Your task to perform on an android device: open app "Booking.com: Hotels and more" (install if not already installed) and enter user name: "misting@outlook.com" and password: "blandly" Image 0: 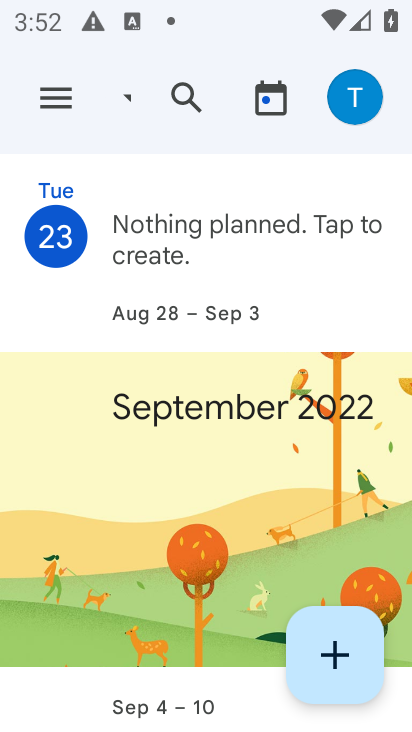
Step 0: press home button
Your task to perform on an android device: open app "Booking.com: Hotels and more" (install if not already installed) and enter user name: "misting@outlook.com" and password: "blandly" Image 1: 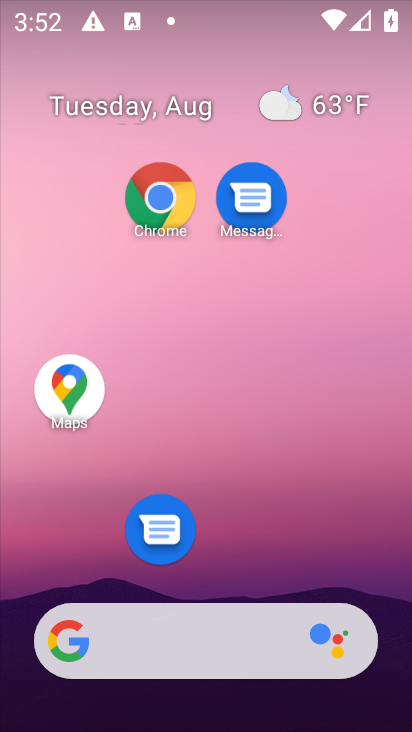
Step 1: drag from (295, 603) to (323, 13)
Your task to perform on an android device: open app "Booking.com: Hotels and more" (install if not already installed) and enter user name: "misting@outlook.com" and password: "blandly" Image 2: 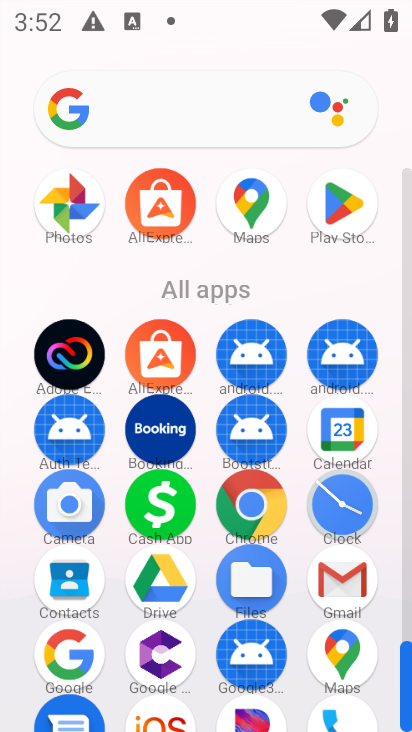
Step 2: click (340, 206)
Your task to perform on an android device: open app "Booking.com: Hotels and more" (install if not already installed) and enter user name: "misting@outlook.com" and password: "blandly" Image 3: 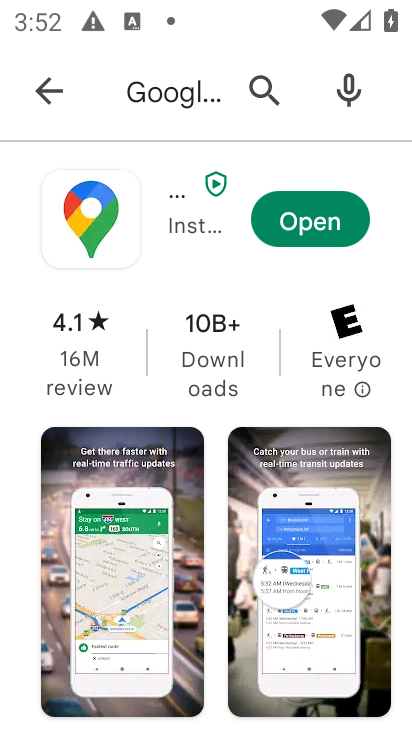
Step 3: press back button
Your task to perform on an android device: open app "Booking.com: Hotels and more" (install if not already installed) and enter user name: "misting@outlook.com" and password: "blandly" Image 4: 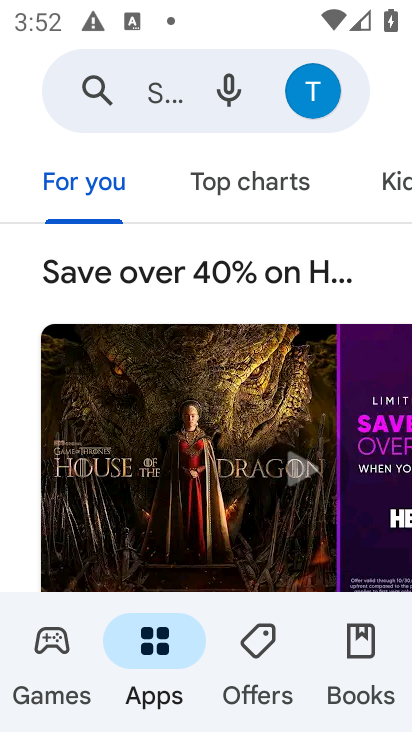
Step 4: click (151, 102)
Your task to perform on an android device: open app "Booking.com: Hotels and more" (install if not already installed) and enter user name: "misting@outlook.com" and password: "blandly" Image 5: 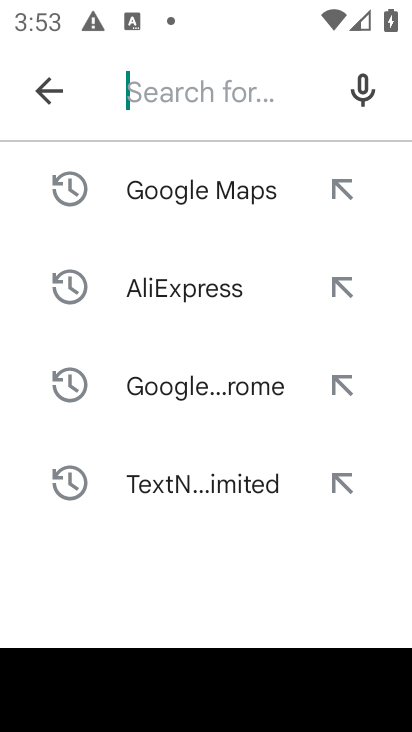
Step 5: type "Booking.com: Hotels and more"
Your task to perform on an android device: open app "Booking.com: Hotels and more" (install if not already installed) and enter user name: "misting@outlook.com" and password: "blandly" Image 6: 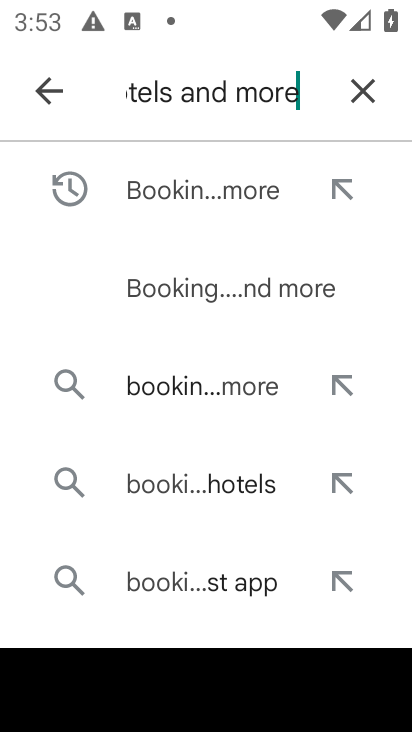
Step 6: press enter
Your task to perform on an android device: open app "Booking.com: Hotels and more" (install if not already installed) and enter user name: "misting@outlook.com" and password: "blandly" Image 7: 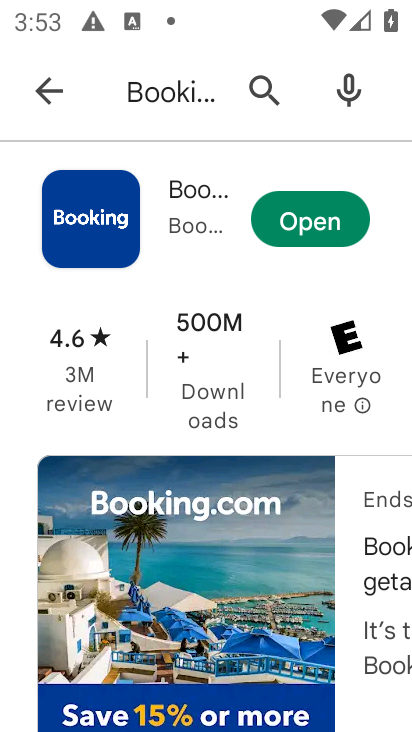
Step 7: click (330, 219)
Your task to perform on an android device: open app "Booking.com: Hotels and more" (install if not already installed) and enter user name: "misting@outlook.com" and password: "blandly" Image 8: 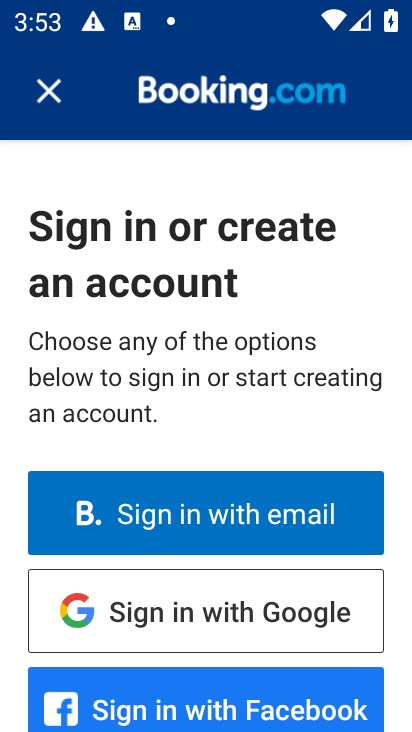
Step 8: drag from (338, 385) to (288, 102)
Your task to perform on an android device: open app "Booking.com: Hotels and more" (install if not already installed) and enter user name: "misting@outlook.com" and password: "blandly" Image 9: 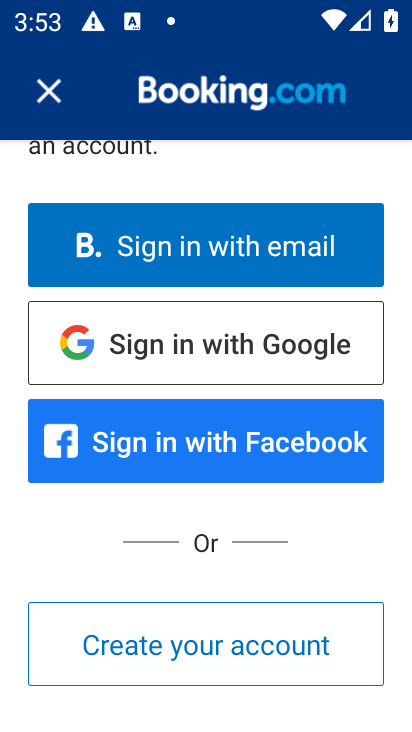
Step 9: click (225, 240)
Your task to perform on an android device: open app "Booking.com: Hotels and more" (install if not already installed) and enter user name: "misting@outlook.com" and password: "blandly" Image 10: 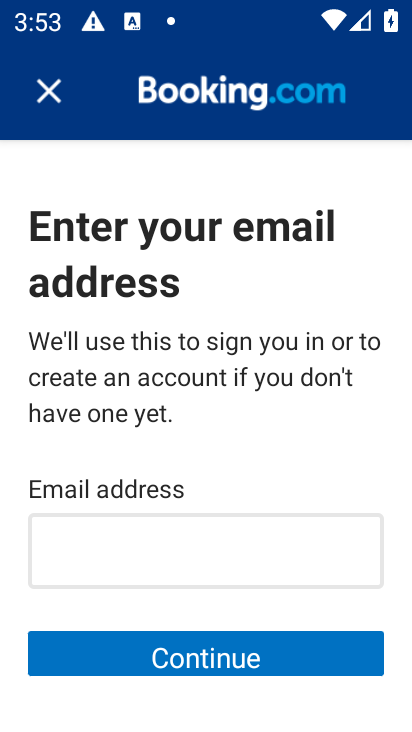
Step 10: press back button
Your task to perform on an android device: open app "Booking.com: Hotels and more" (install if not already installed) and enter user name: "misting@outlook.com" and password: "blandly" Image 11: 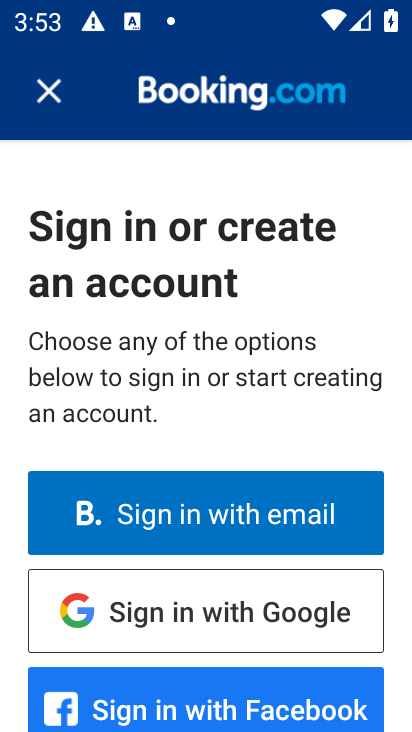
Step 11: drag from (115, 326) to (75, 189)
Your task to perform on an android device: open app "Booking.com: Hotels and more" (install if not already installed) and enter user name: "misting@outlook.com" and password: "blandly" Image 12: 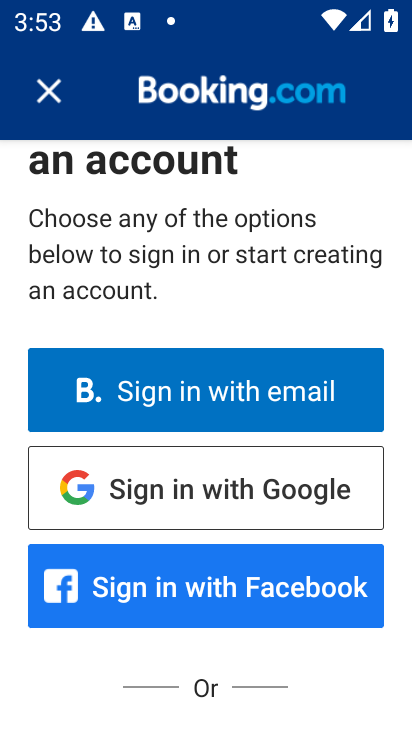
Step 12: click (157, 599)
Your task to perform on an android device: open app "Booking.com: Hotels and more" (install if not already installed) and enter user name: "misting@outlook.com" and password: "blandly" Image 13: 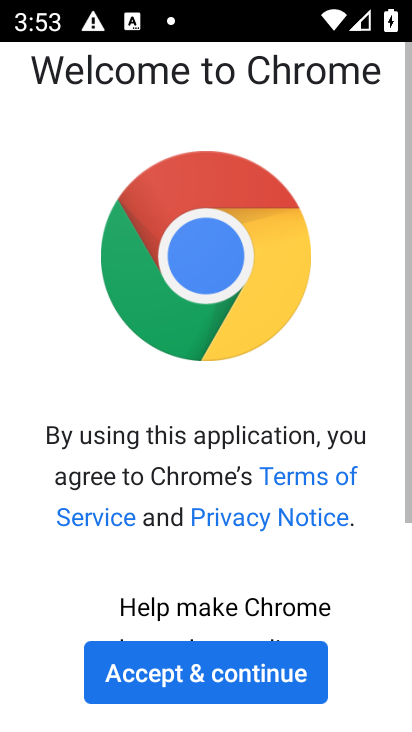
Step 13: click (194, 697)
Your task to perform on an android device: open app "Booking.com: Hotels and more" (install if not already installed) and enter user name: "misting@outlook.com" and password: "blandly" Image 14: 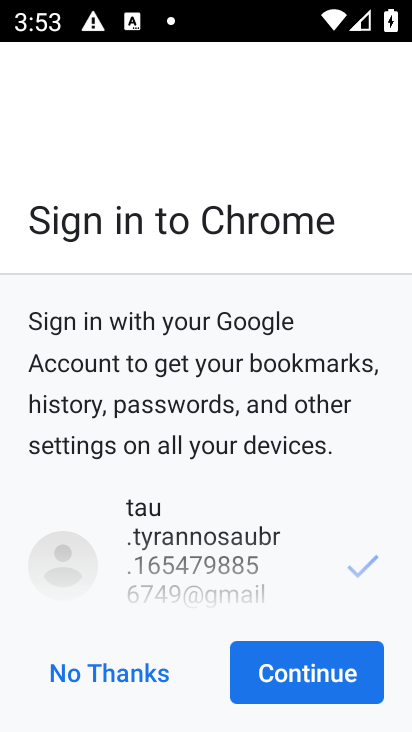
Step 14: click (66, 679)
Your task to perform on an android device: open app "Booking.com: Hotels and more" (install if not already installed) and enter user name: "misting@outlook.com" and password: "blandly" Image 15: 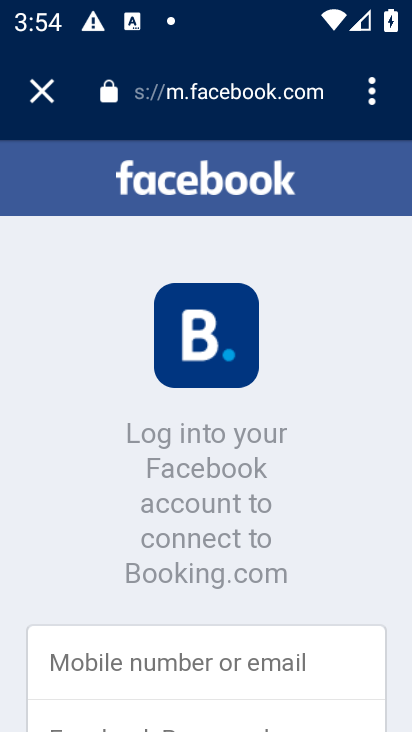
Step 15: drag from (211, 584) to (198, 257)
Your task to perform on an android device: open app "Booking.com: Hotels and more" (install if not already installed) and enter user name: "misting@outlook.com" and password: "blandly" Image 16: 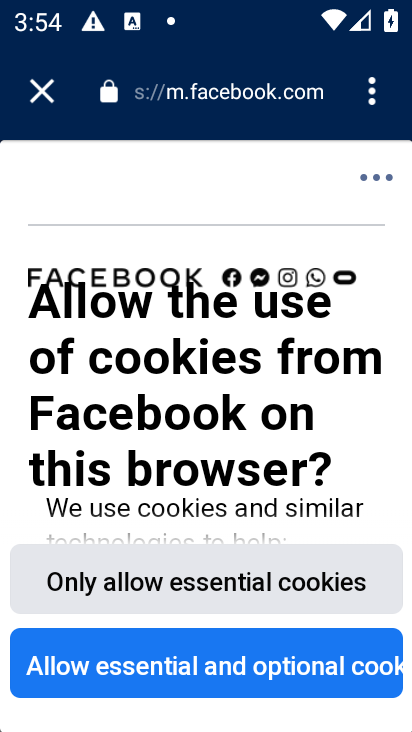
Step 16: click (250, 677)
Your task to perform on an android device: open app "Booking.com: Hotels and more" (install if not already installed) and enter user name: "misting@outlook.com" and password: "blandly" Image 17: 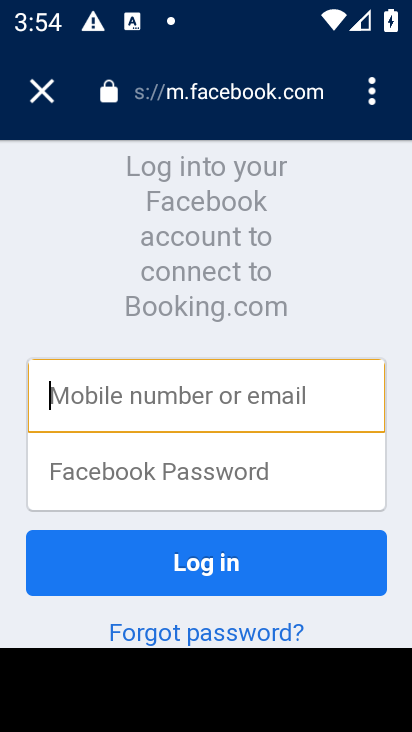
Step 17: type "misting@outlook.com"
Your task to perform on an android device: open app "Booking.com: Hotels and more" (install if not already installed) and enter user name: "misting@outlook.com" and password: "blandly" Image 18: 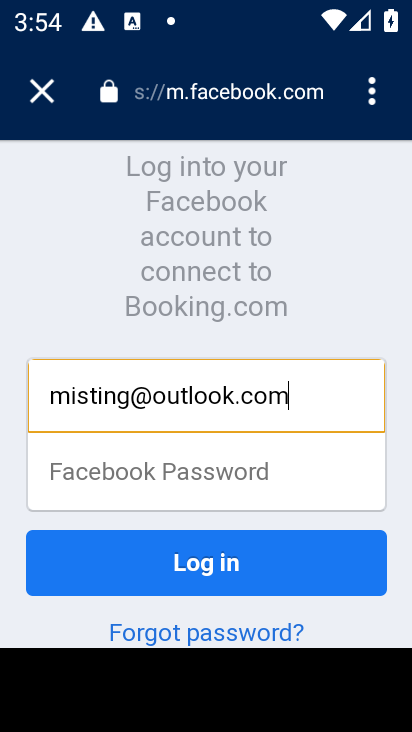
Step 18: click (175, 457)
Your task to perform on an android device: open app "Booking.com: Hotels and more" (install if not already installed) and enter user name: "misting@outlook.com" and password: "blandly" Image 19: 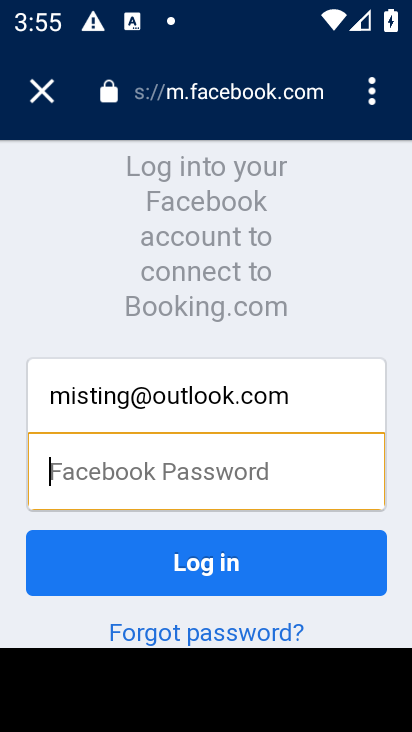
Step 19: type "blandly"
Your task to perform on an android device: open app "Booking.com: Hotels and more" (install if not already installed) and enter user name: "misting@outlook.com" and password: "blandly" Image 20: 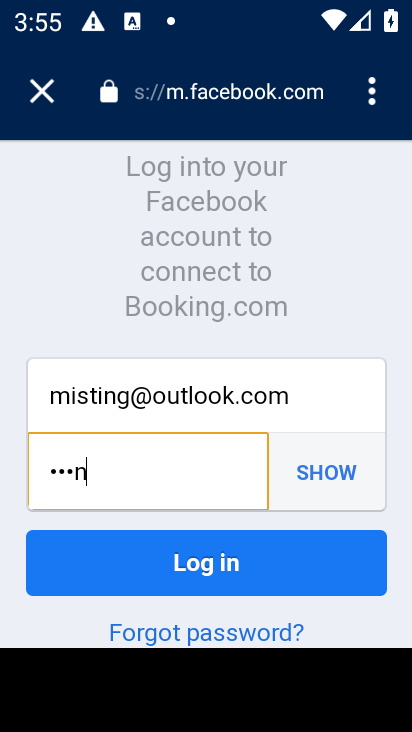
Step 20: press enter
Your task to perform on an android device: open app "Booking.com: Hotels and more" (install if not already installed) and enter user name: "misting@outlook.com" and password: "blandly" Image 21: 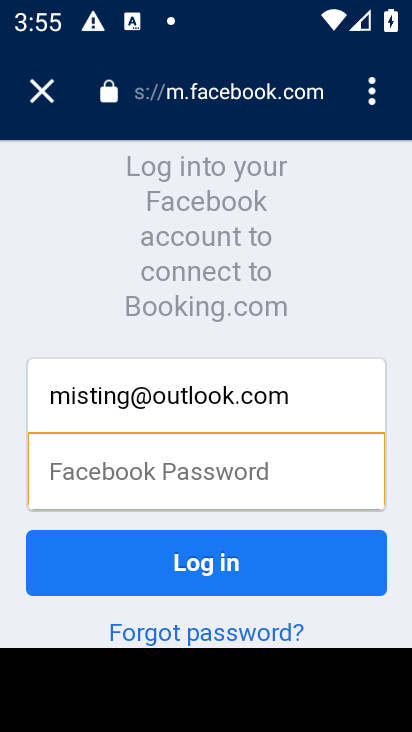
Step 21: click (130, 470)
Your task to perform on an android device: open app "Booking.com: Hotels and more" (install if not already installed) and enter user name: "misting@outlook.com" and password: "blandly" Image 22: 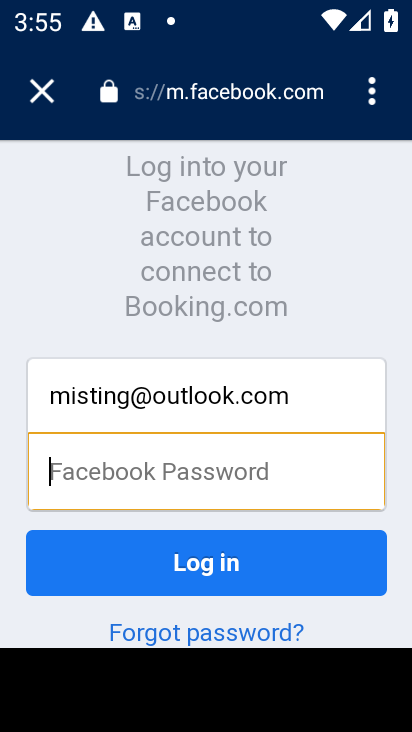
Step 22: type "blandly"
Your task to perform on an android device: open app "Booking.com: Hotels and more" (install if not already installed) and enter user name: "misting@outlook.com" and password: "blandly" Image 23: 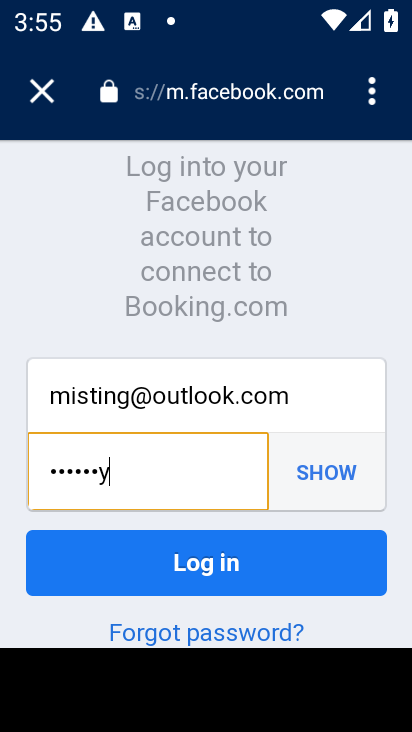
Step 23: press enter
Your task to perform on an android device: open app "Booking.com: Hotels and more" (install if not already installed) and enter user name: "misting@outlook.com" and password: "blandly" Image 24: 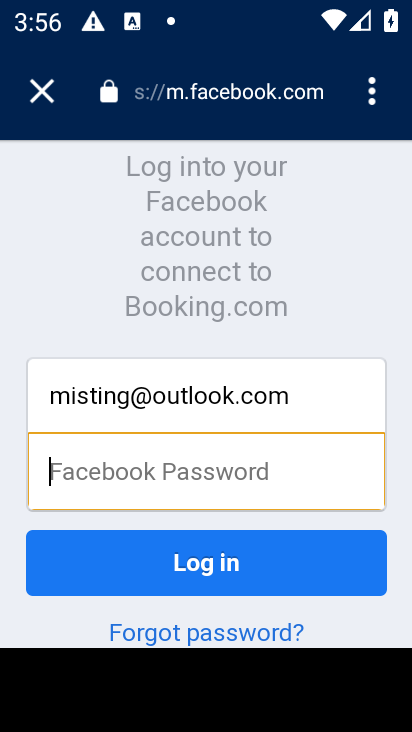
Step 24: task complete